Your task to perform on an android device: What is the news today? Image 0: 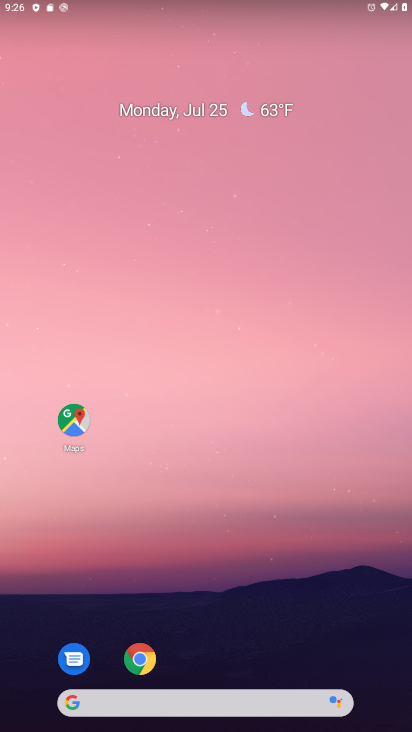
Step 0: drag from (2, 218) to (410, 300)
Your task to perform on an android device: What is the news today? Image 1: 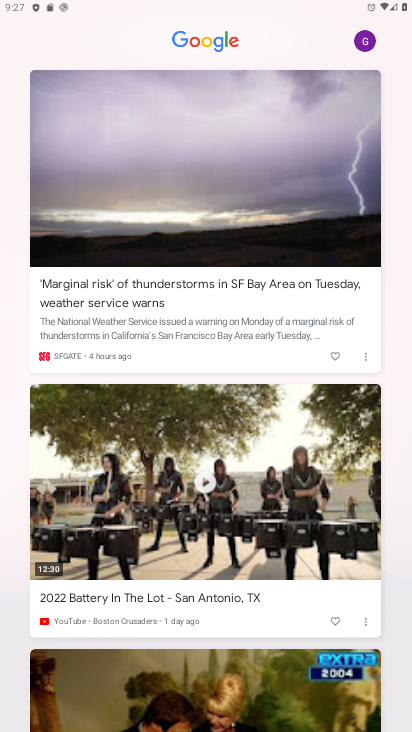
Step 1: task complete